Your task to perform on an android device: Open the map Image 0: 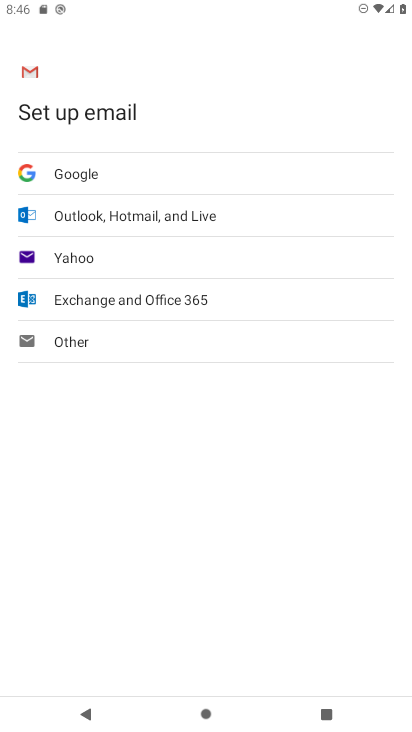
Step 0: press home button
Your task to perform on an android device: Open the map Image 1: 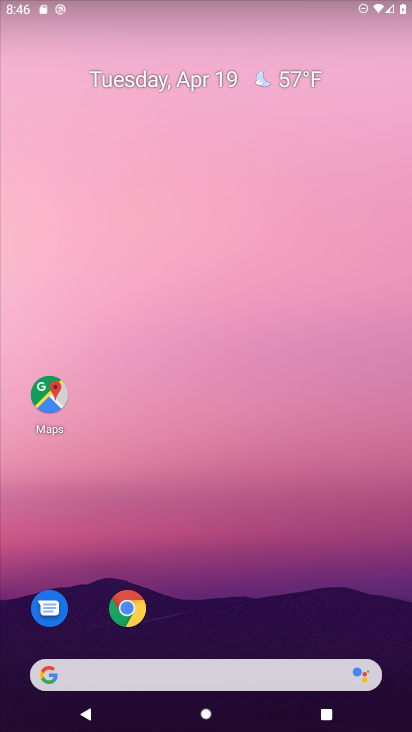
Step 1: click (47, 391)
Your task to perform on an android device: Open the map Image 2: 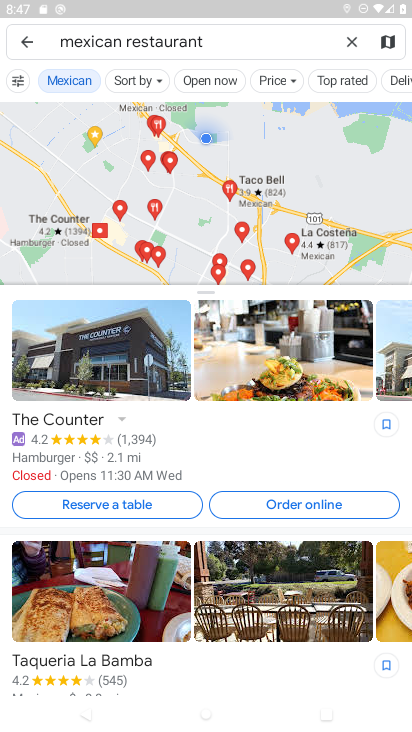
Step 2: task complete